Your task to perform on an android device: Go to wifi settings Image 0: 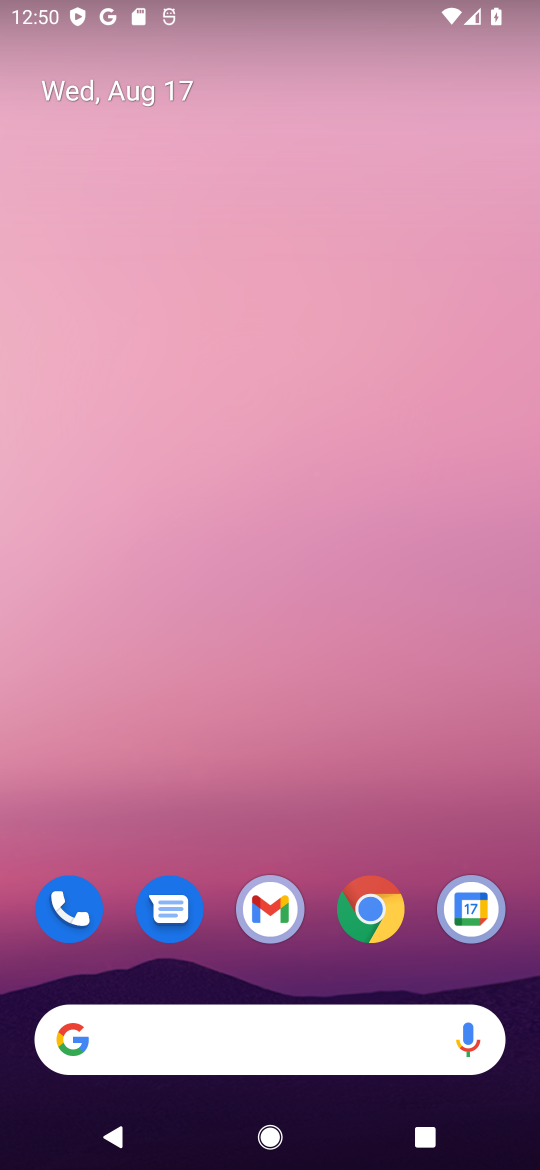
Step 0: drag from (302, 796) to (201, 98)
Your task to perform on an android device: Go to wifi settings Image 1: 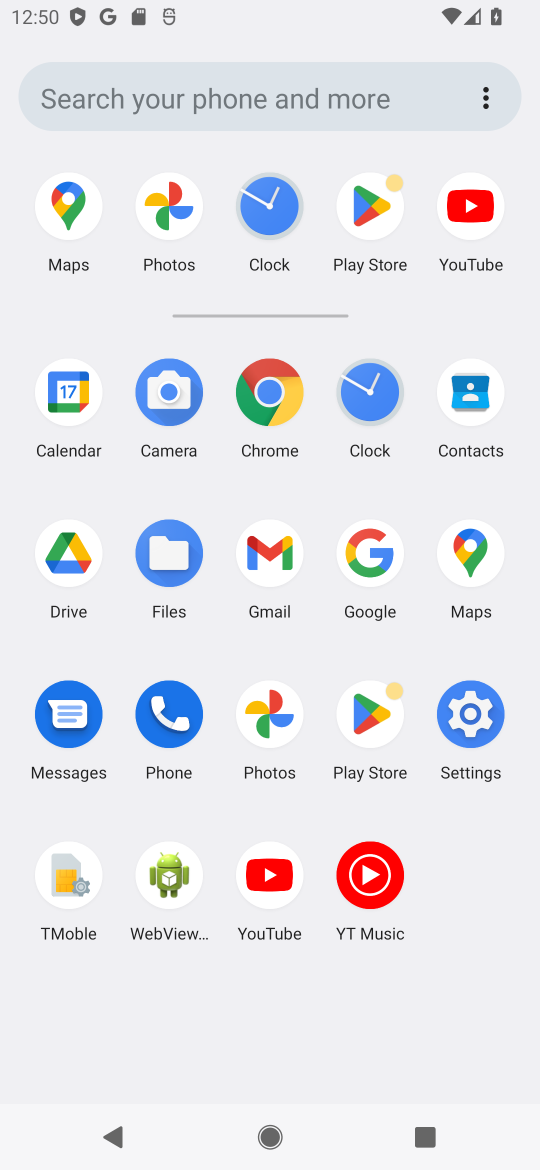
Step 1: click (484, 705)
Your task to perform on an android device: Go to wifi settings Image 2: 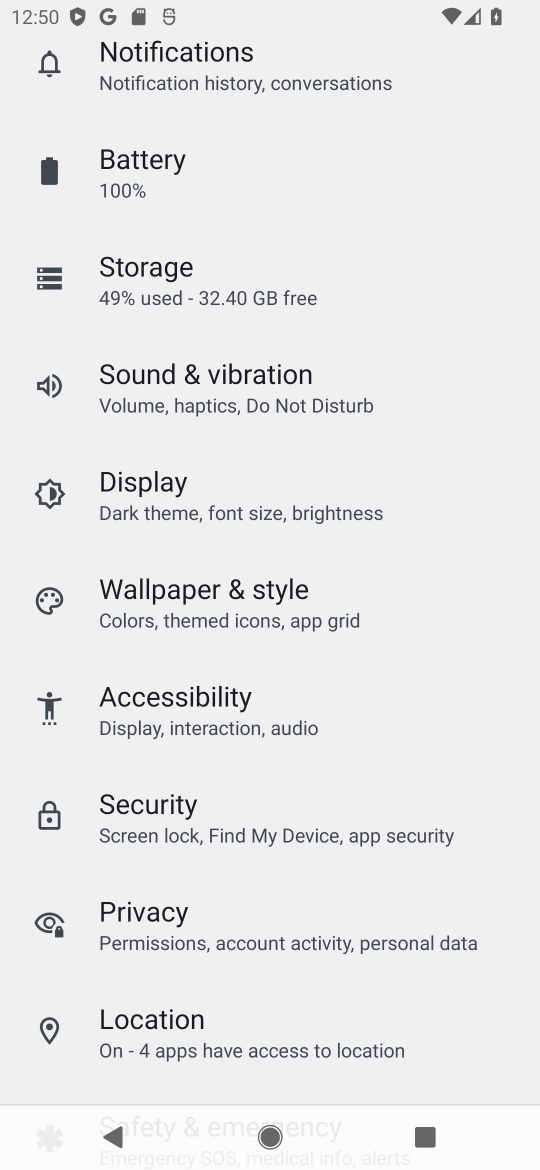
Step 2: drag from (226, 190) to (242, 1105)
Your task to perform on an android device: Go to wifi settings Image 3: 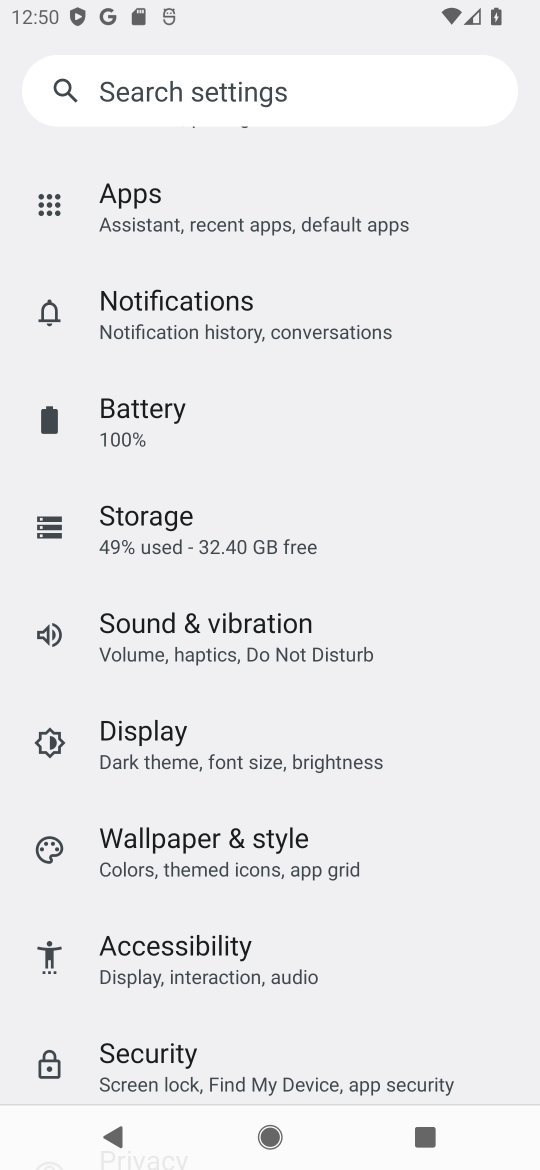
Step 3: drag from (294, 397) to (332, 1038)
Your task to perform on an android device: Go to wifi settings Image 4: 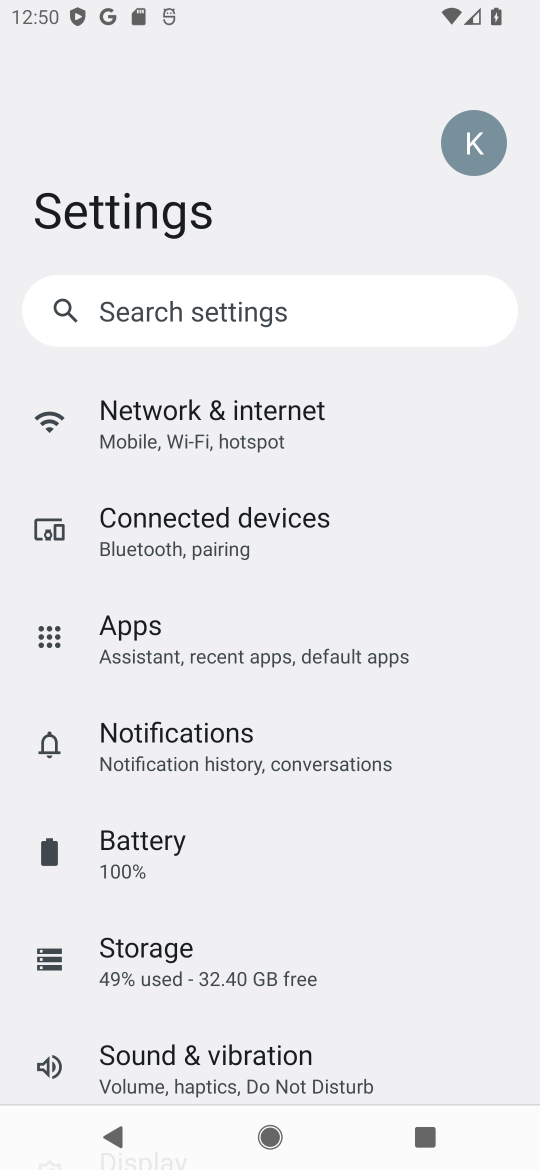
Step 4: click (190, 415)
Your task to perform on an android device: Go to wifi settings Image 5: 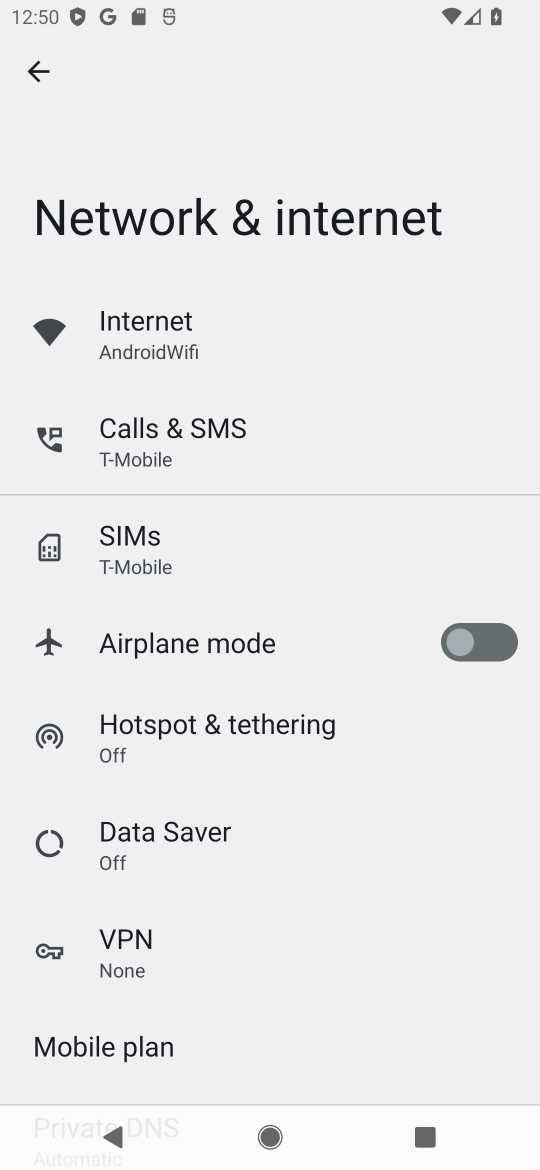
Step 5: click (107, 331)
Your task to perform on an android device: Go to wifi settings Image 6: 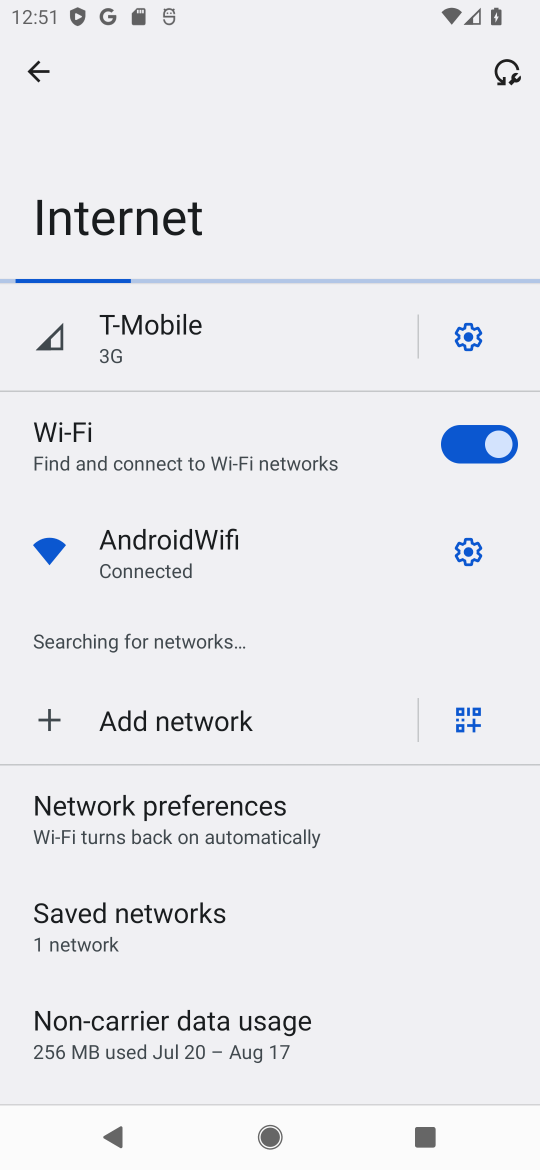
Step 6: task complete